Your task to perform on an android device: Go to notification settings Image 0: 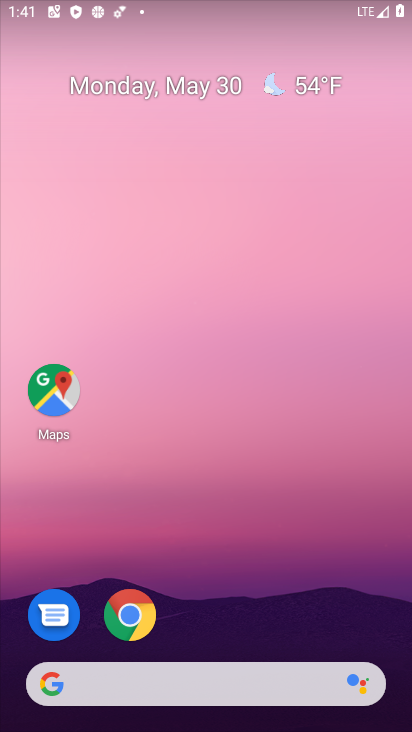
Step 0: drag from (231, 587) to (258, 101)
Your task to perform on an android device: Go to notification settings Image 1: 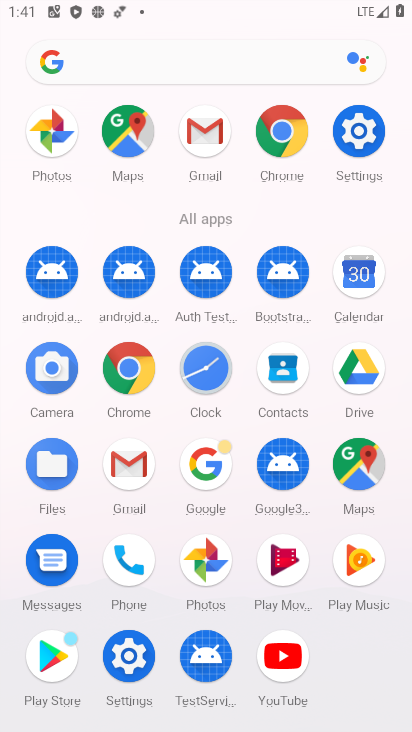
Step 1: click (334, 133)
Your task to perform on an android device: Go to notification settings Image 2: 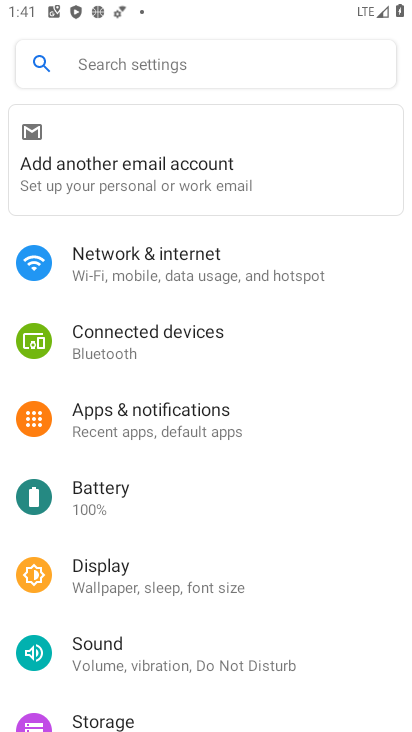
Step 2: click (142, 437)
Your task to perform on an android device: Go to notification settings Image 3: 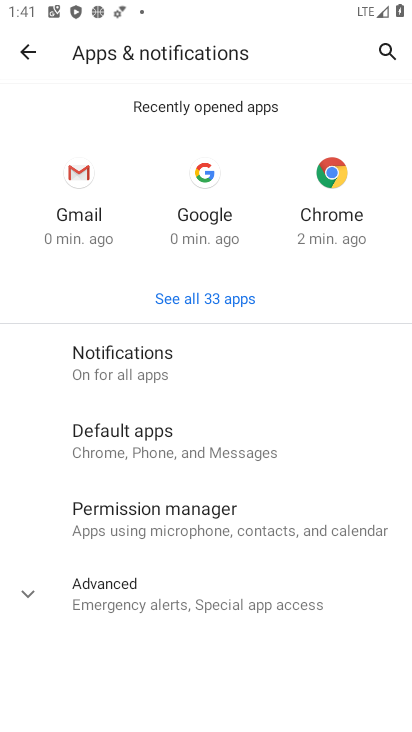
Step 3: click (144, 368)
Your task to perform on an android device: Go to notification settings Image 4: 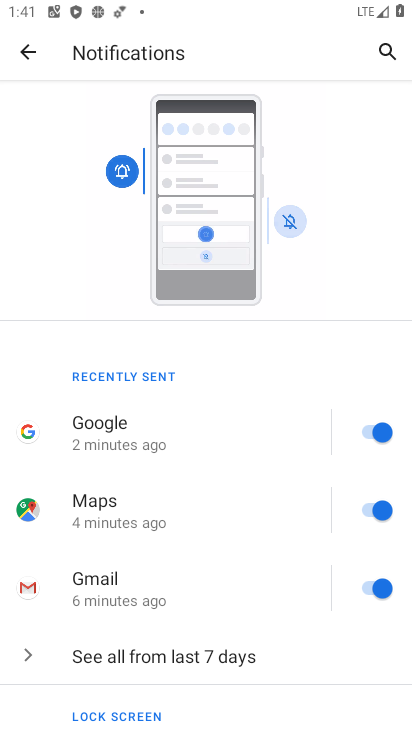
Step 4: task complete